Your task to perform on an android device: Open the calendar app, open the side menu, and click the "Day" option Image 0: 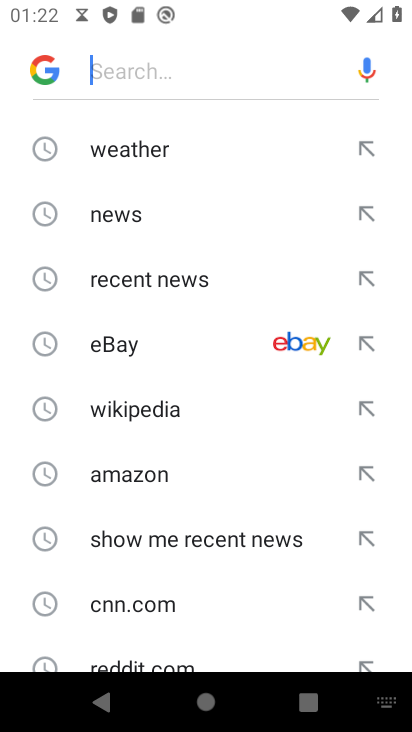
Step 0: press home button
Your task to perform on an android device: Open the calendar app, open the side menu, and click the "Day" option Image 1: 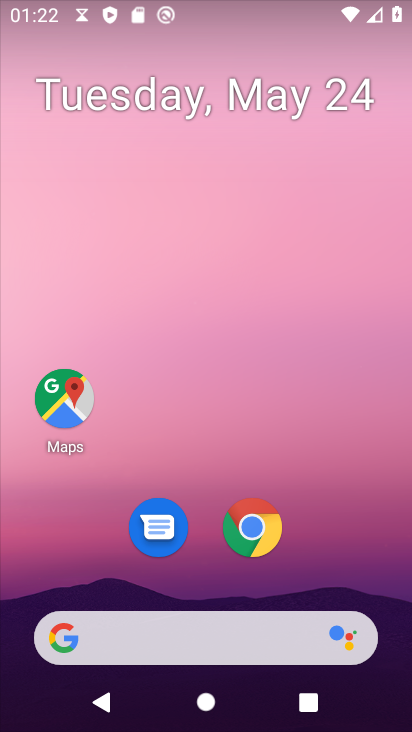
Step 1: drag from (216, 640) to (315, 22)
Your task to perform on an android device: Open the calendar app, open the side menu, and click the "Day" option Image 2: 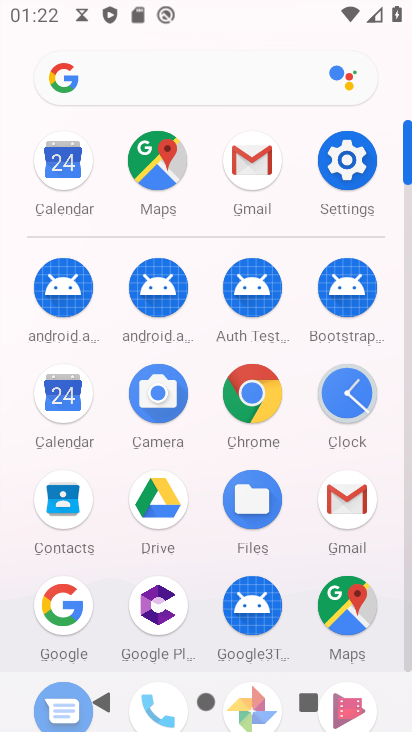
Step 2: click (71, 409)
Your task to perform on an android device: Open the calendar app, open the side menu, and click the "Day" option Image 3: 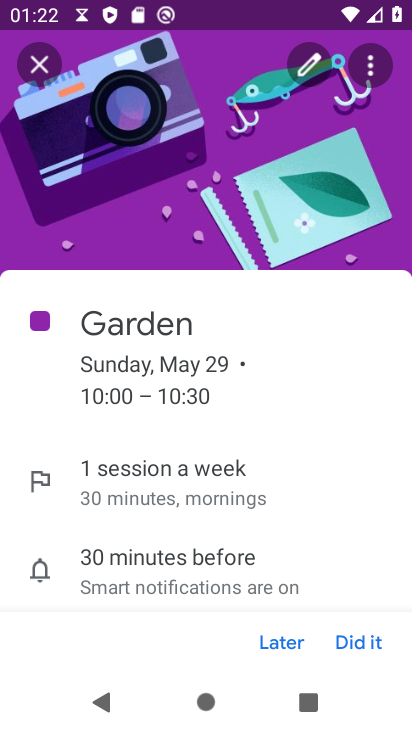
Step 3: click (41, 60)
Your task to perform on an android device: Open the calendar app, open the side menu, and click the "Day" option Image 4: 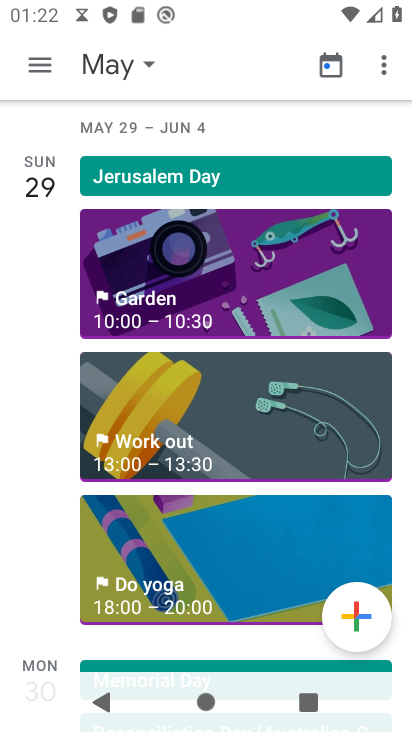
Step 4: click (40, 62)
Your task to perform on an android device: Open the calendar app, open the side menu, and click the "Day" option Image 5: 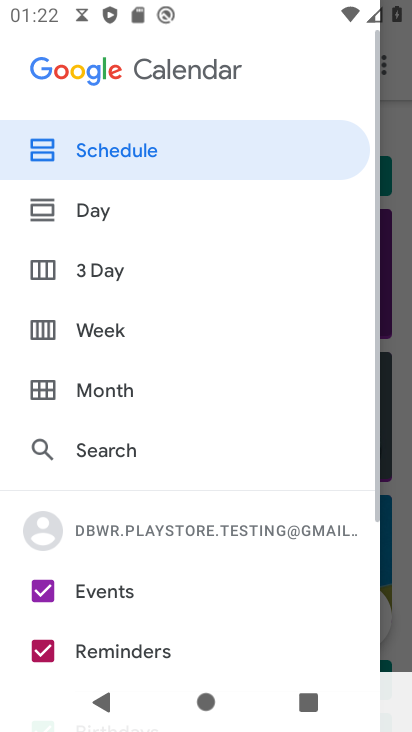
Step 5: click (85, 211)
Your task to perform on an android device: Open the calendar app, open the side menu, and click the "Day" option Image 6: 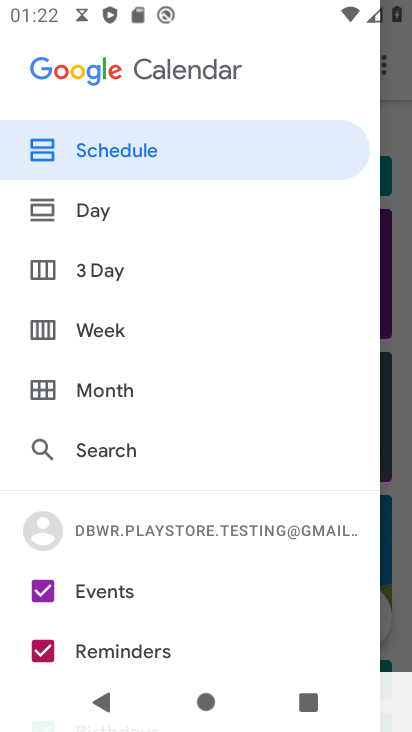
Step 6: click (93, 210)
Your task to perform on an android device: Open the calendar app, open the side menu, and click the "Day" option Image 7: 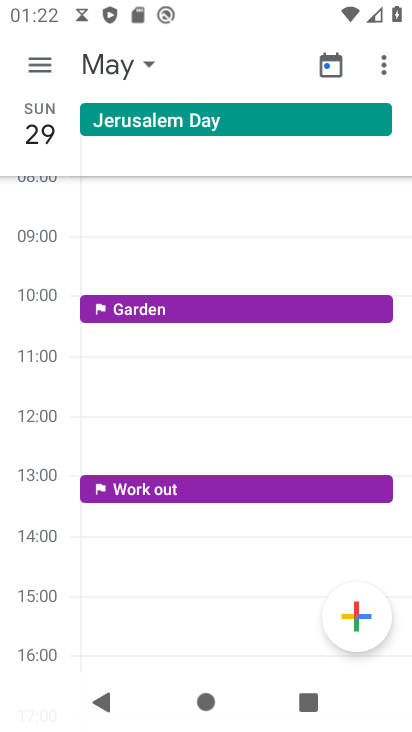
Step 7: task complete